Your task to perform on an android device: change timer sound Image 0: 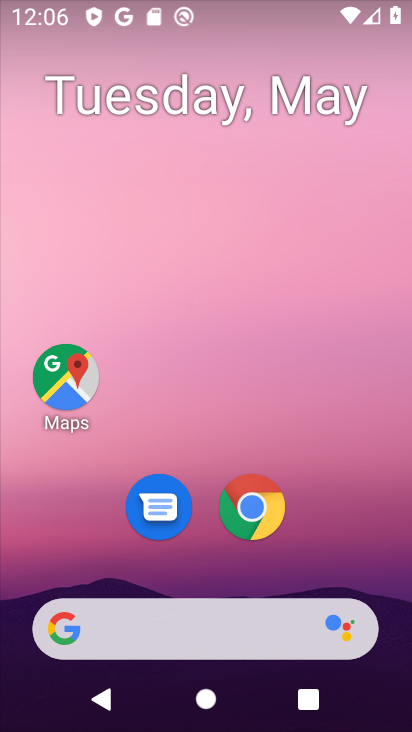
Step 0: drag from (366, 570) to (376, 38)
Your task to perform on an android device: change timer sound Image 1: 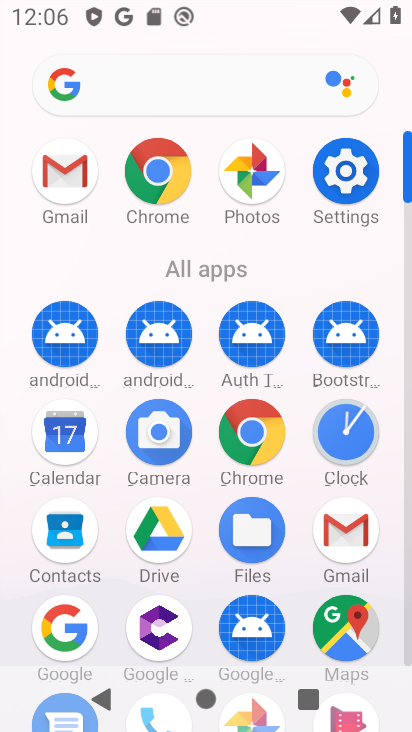
Step 1: click (344, 421)
Your task to perform on an android device: change timer sound Image 2: 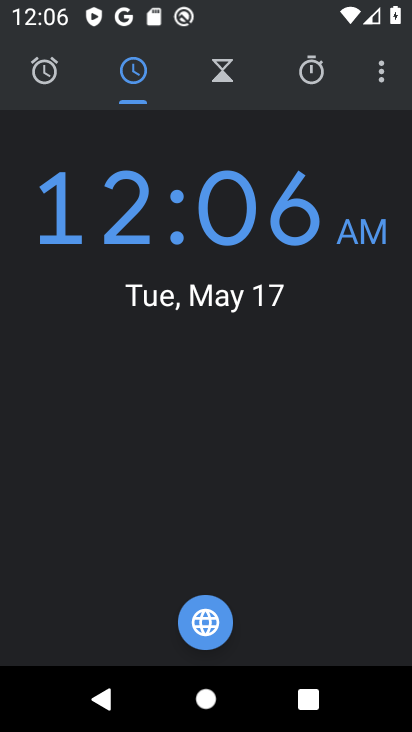
Step 2: click (382, 79)
Your task to perform on an android device: change timer sound Image 3: 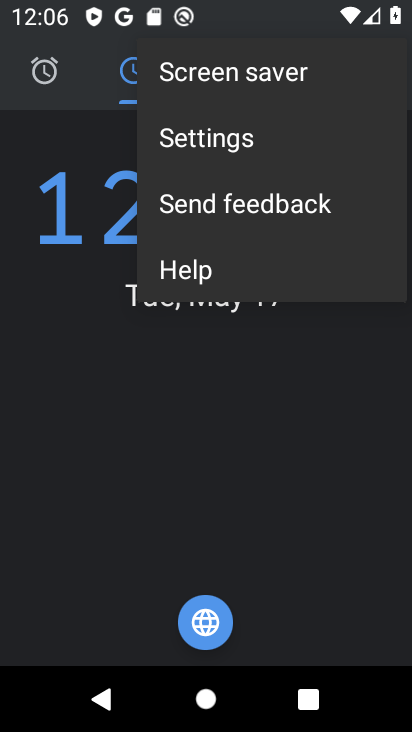
Step 3: click (240, 147)
Your task to perform on an android device: change timer sound Image 4: 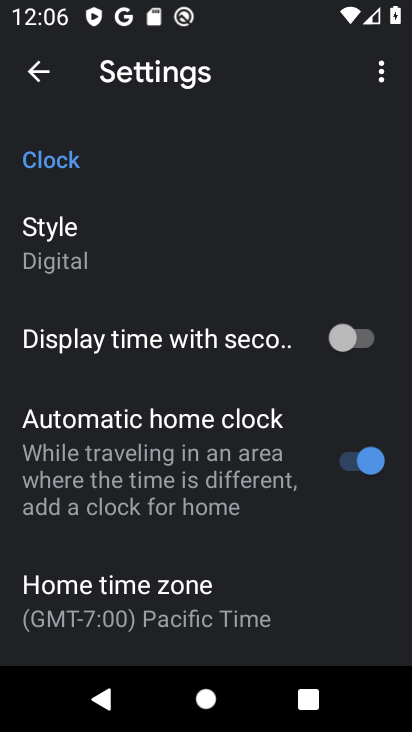
Step 4: drag from (315, 575) to (308, 360)
Your task to perform on an android device: change timer sound Image 5: 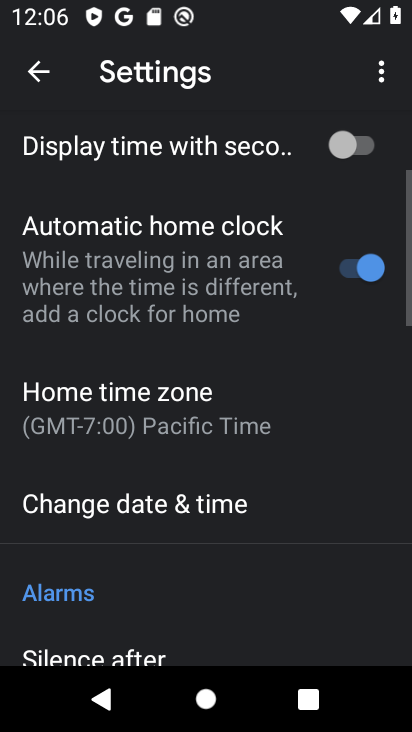
Step 5: drag from (344, 595) to (348, 380)
Your task to perform on an android device: change timer sound Image 6: 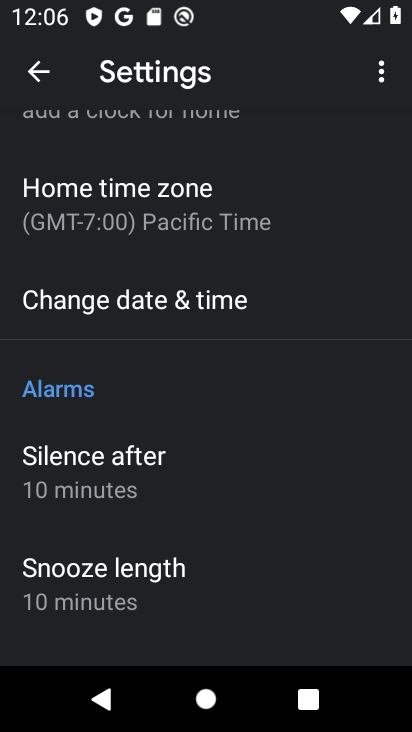
Step 6: drag from (331, 583) to (339, 465)
Your task to perform on an android device: change timer sound Image 7: 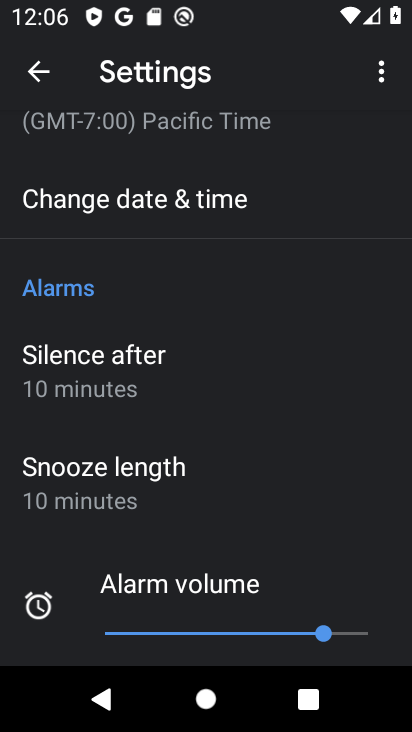
Step 7: drag from (323, 550) to (349, 377)
Your task to perform on an android device: change timer sound Image 8: 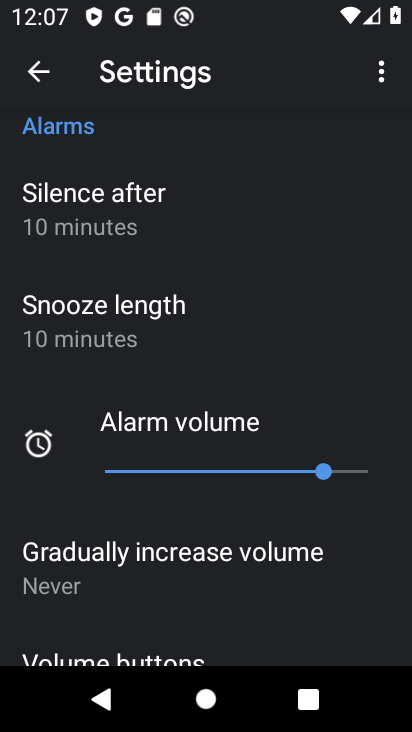
Step 8: drag from (352, 589) to (346, 377)
Your task to perform on an android device: change timer sound Image 9: 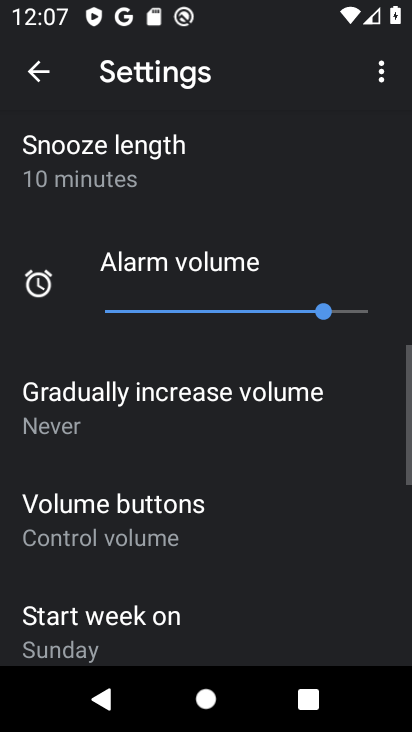
Step 9: drag from (305, 562) to (307, 383)
Your task to perform on an android device: change timer sound Image 10: 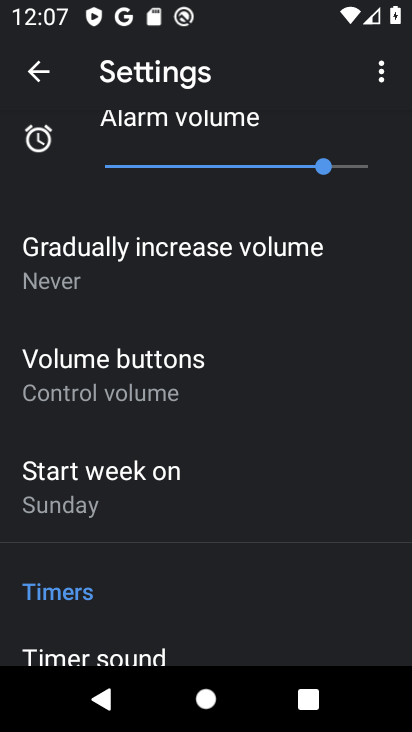
Step 10: drag from (273, 578) to (293, 411)
Your task to perform on an android device: change timer sound Image 11: 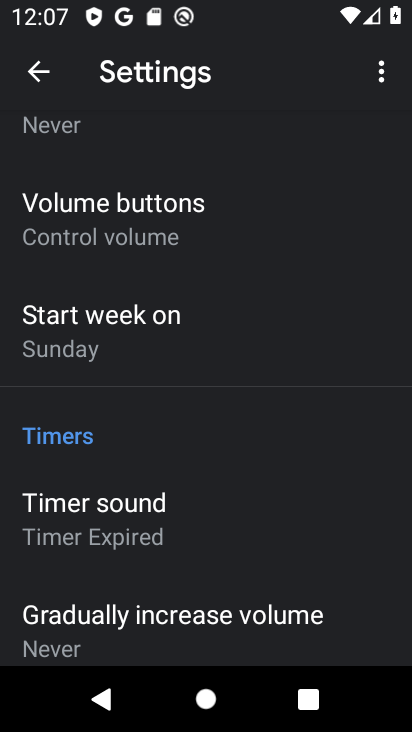
Step 11: click (144, 532)
Your task to perform on an android device: change timer sound Image 12: 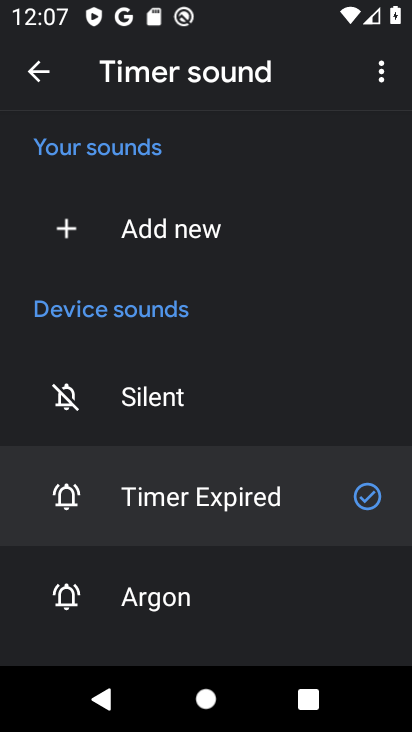
Step 12: click (141, 601)
Your task to perform on an android device: change timer sound Image 13: 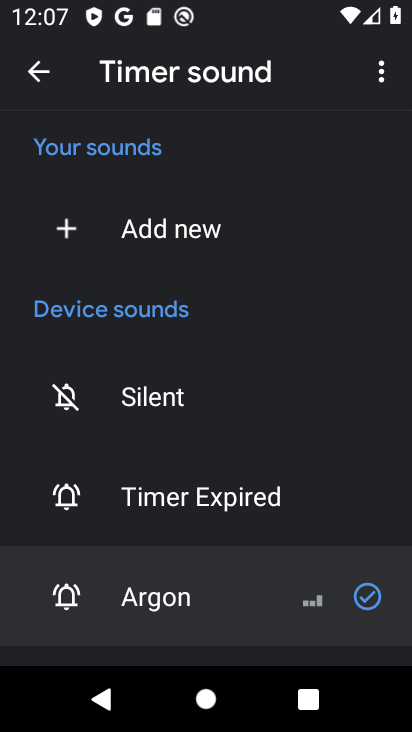
Step 13: task complete